Your task to perform on an android device: change keyboard looks Image 0: 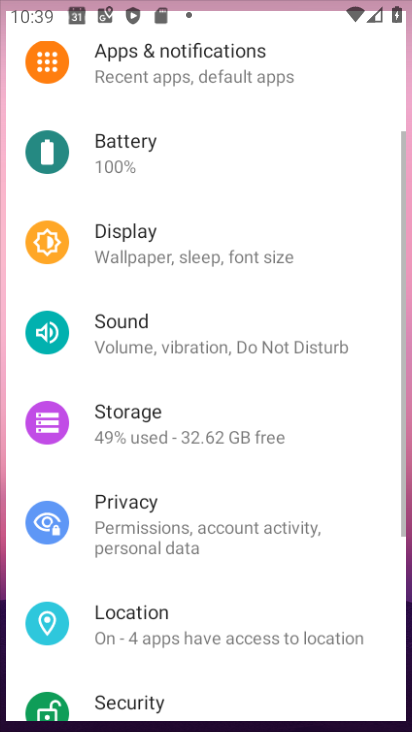
Step 0: drag from (243, 476) to (245, 49)
Your task to perform on an android device: change keyboard looks Image 1: 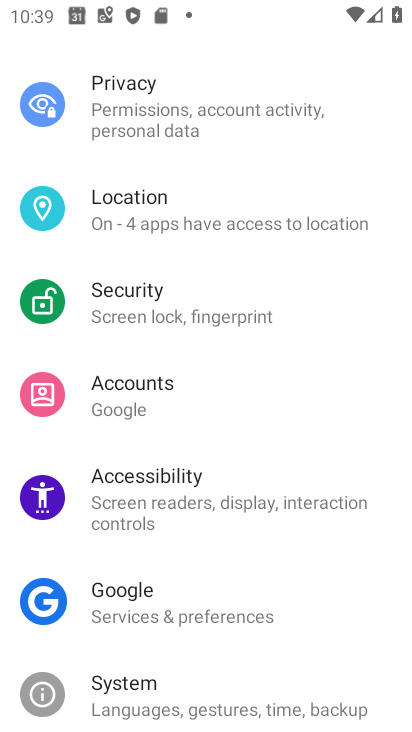
Step 1: press home button
Your task to perform on an android device: change keyboard looks Image 2: 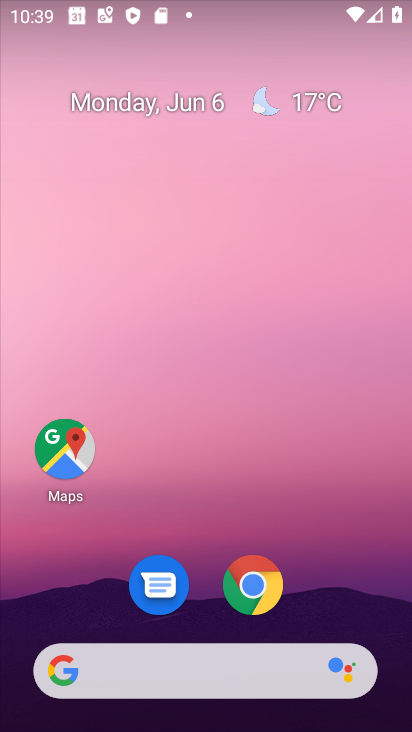
Step 2: drag from (226, 328) to (241, 69)
Your task to perform on an android device: change keyboard looks Image 3: 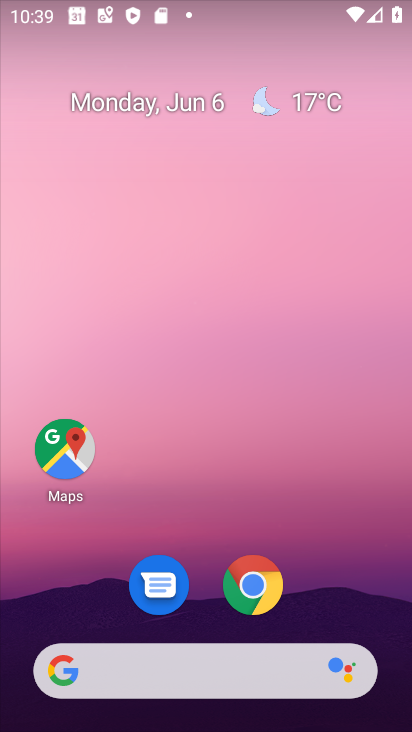
Step 3: drag from (194, 489) to (206, 7)
Your task to perform on an android device: change keyboard looks Image 4: 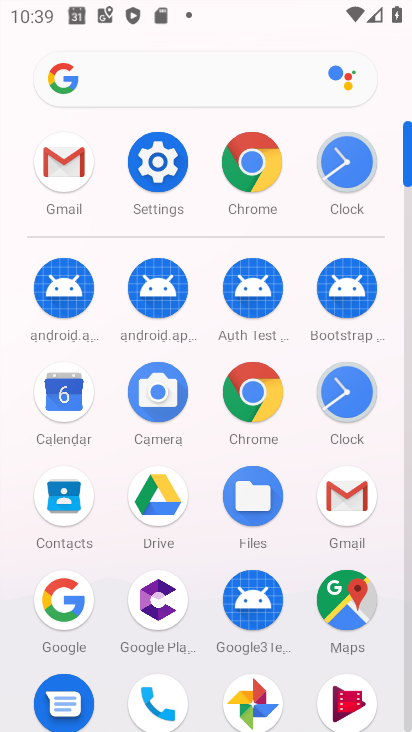
Step 4: click (141, 166)
Your task to perform on an android device: change keyboard looks Image 5: 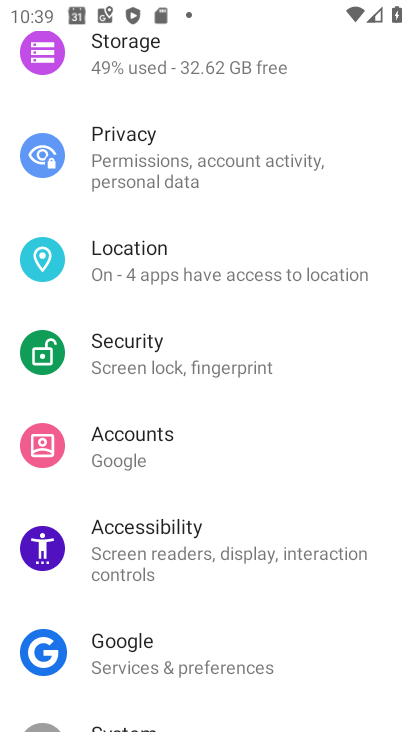
Step 5: drag from (232, 603) to (239, 430)
Your task to perform on an android device: change keyboard looks Image 6: 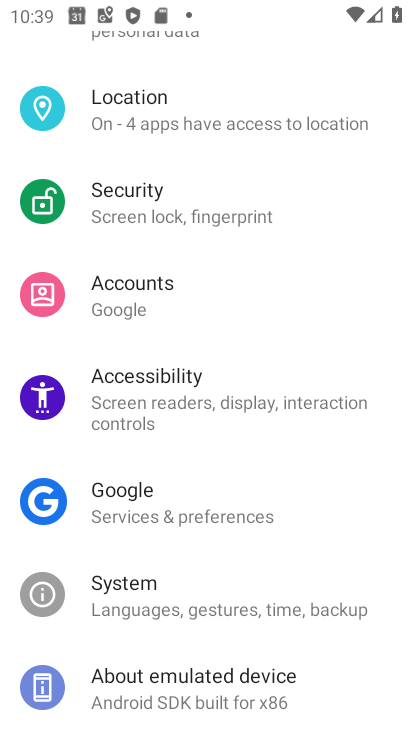
Step 6: click (201, 606)
Your task to perform on an android device: change keyboard looks Image 7: 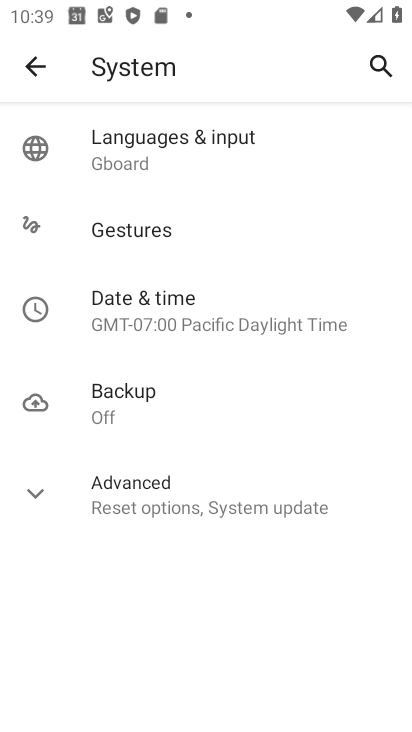
Step 7: click (216, 147)
Your task to perform on an android device: change keyboard looks Image 8: 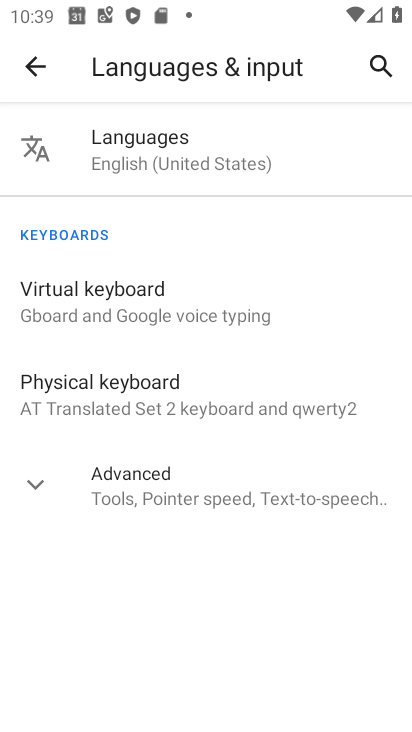
Step 8: click (162, 307)
Your task to perform on an android device: change keyboard looks Image 9: 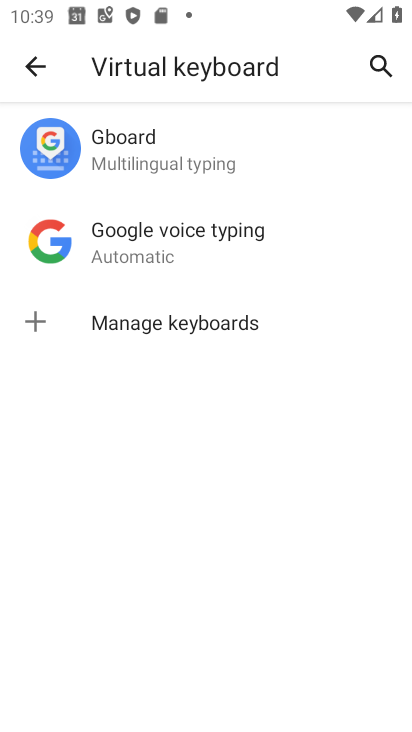
Step 9: click (149, 151)
Your task to perform on an android device: change keyboard looks Image 10: 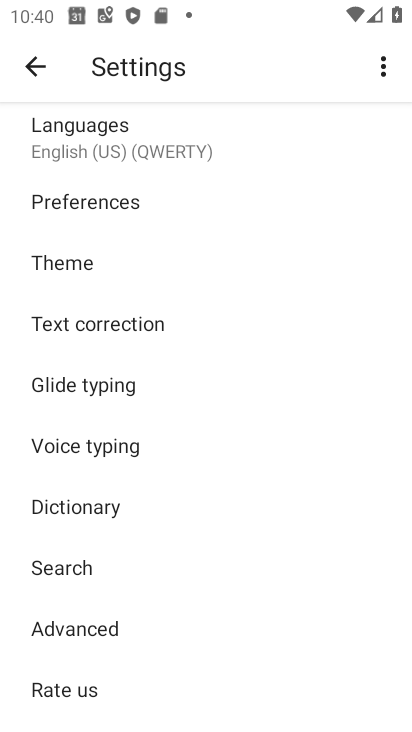
Step 10: click (118, 254)
Your task to perform on an android device: change keyboard looks Image 11: 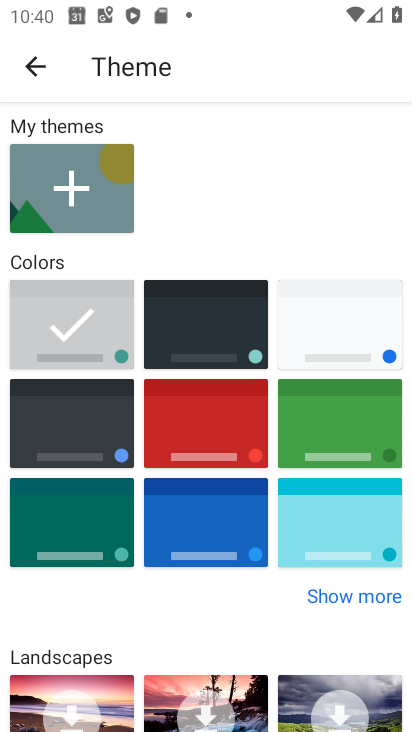
Step 11: click (201, 418)
Your task to perform on an android device: change keyboard looks Image 12: 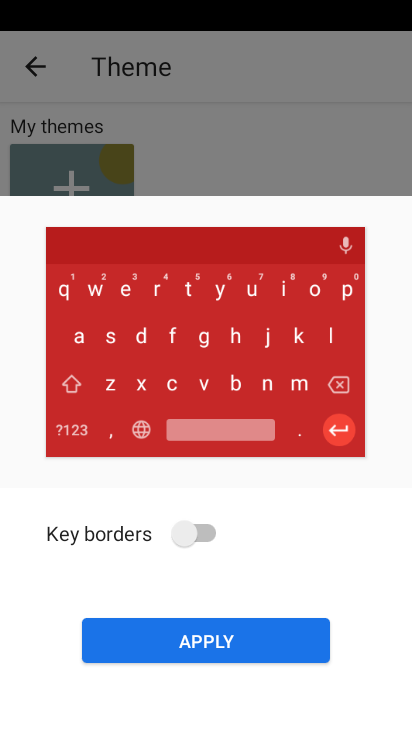
Step 12: click (205, 527)
Your task to perform on an android device: change keyboard looks Image 13: 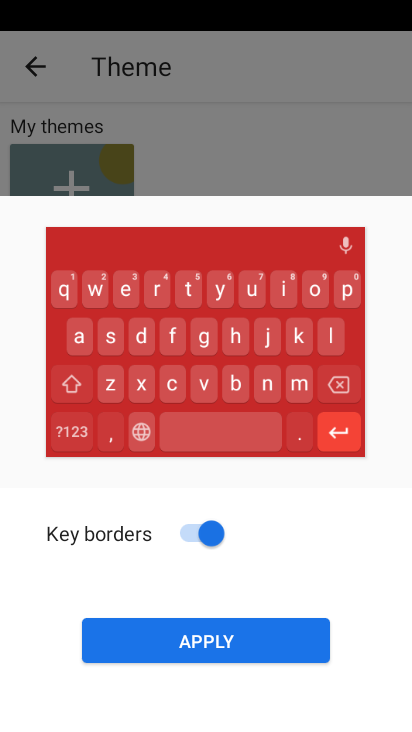
Step 13: click (239, 641)
Your task to perform on an android device: change keyboard looks Image 14: 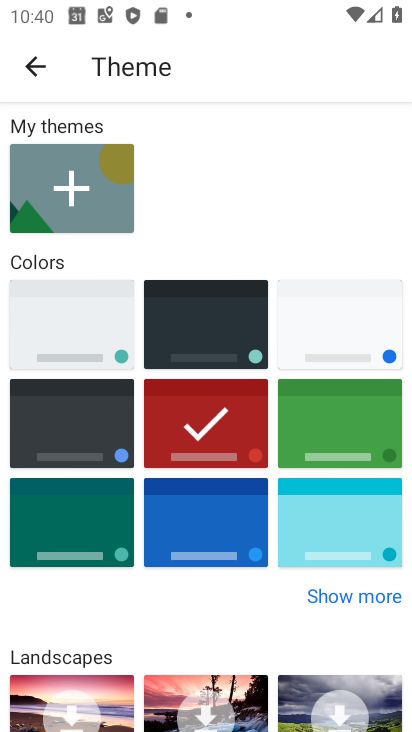
Step 14: task complete